Your task to perform on an android device: turn off wifi Image 0: 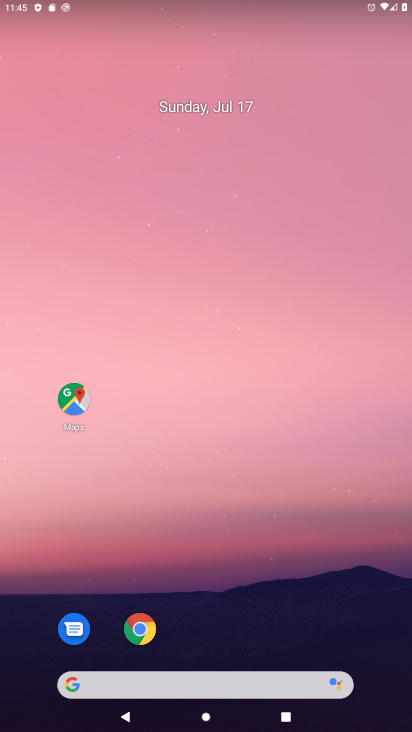
Step 0: press home button
Your task to perform on an android device: turn off wifi Image 1: 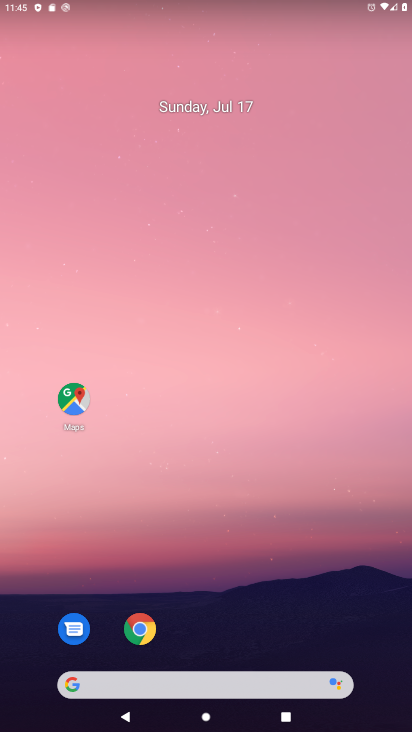
Step 1: drag from (348, 19) to (149, 507)
Your task to perform on an android device: turn off wifi Image 2: 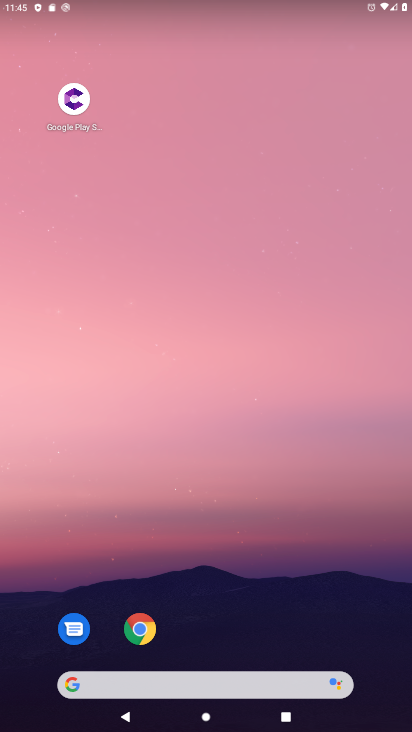
Step 2: drag from (395, 3) to (129, 730)
Your task to perform on an android device: turn off wifi Image 3: 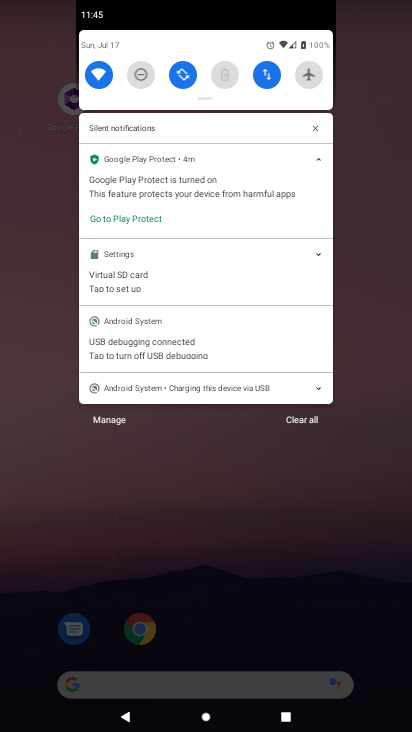
Step 3: click (90, 66)
Your task to perform on an android device: turn off wifi Image 4: 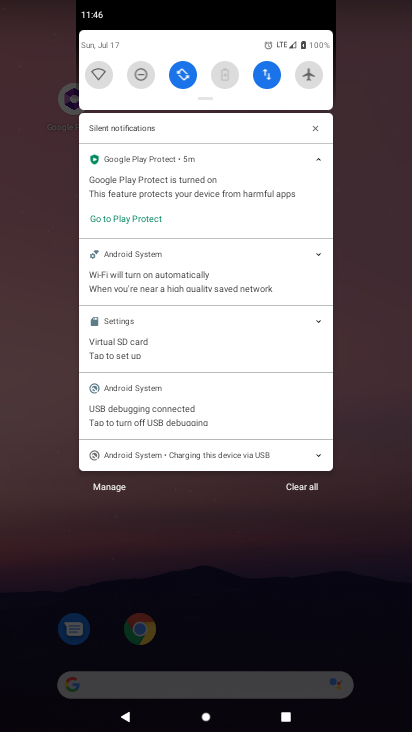
Step 4: task complete